Your task to perform on an android device: clear all cookies in the chrome app Image 0: 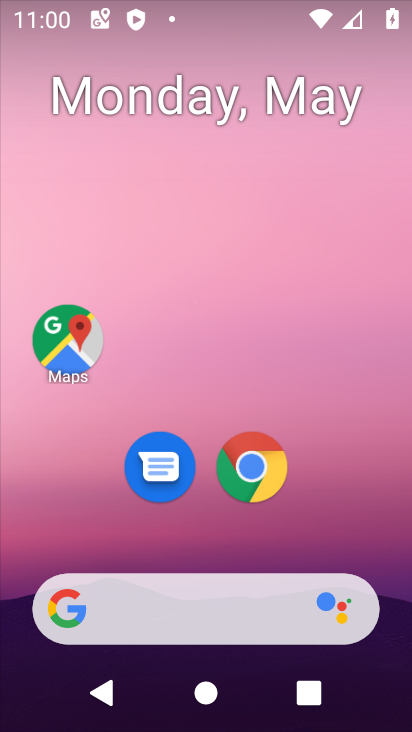
Step 0: click (252, 465)
Your task to perform on an android device: clear all cookies in the chrome app Image 1: 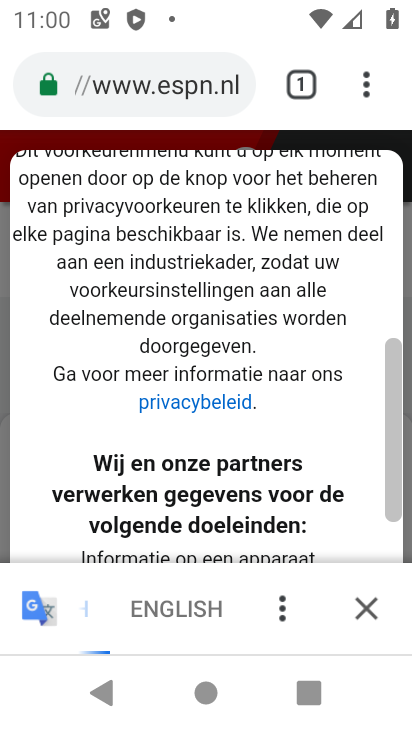
Step 1: click (362, 74)
Your task to perform on an android device: clear all cookies in the chrome app Image 2: 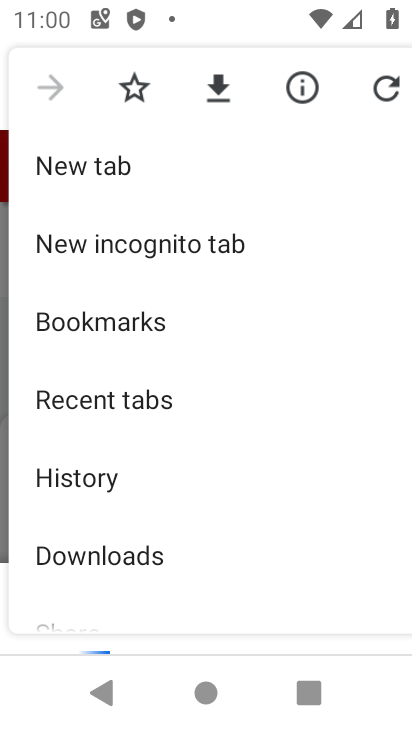
Step 2: click (69, 481)
Your task to perform on an android device: clear all cookies in the chrome app Image 3: 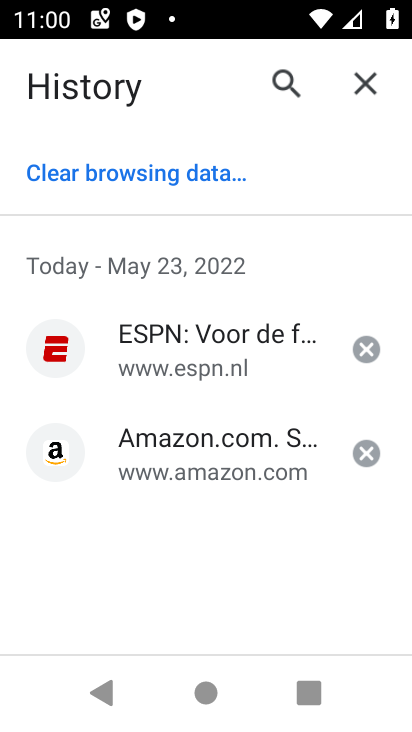
Step 3: click (138, 167)
Your task to perform on an android device: clear all cookies in the chrome app Image 4: 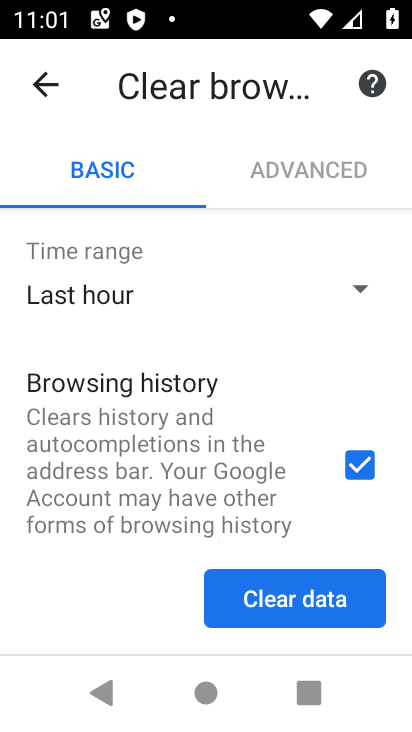
Step 4: drag from (299, 519) to (310, 254)
Your task to perform on an android device: clear all cookies in the chrome app Image 5: 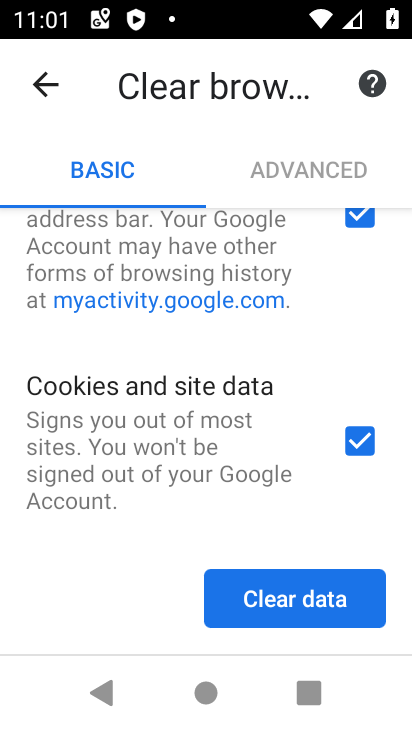
Step 5: click (305, 262)
Your task to perform on an android device: clear all cookies in the chrome app Image 6: 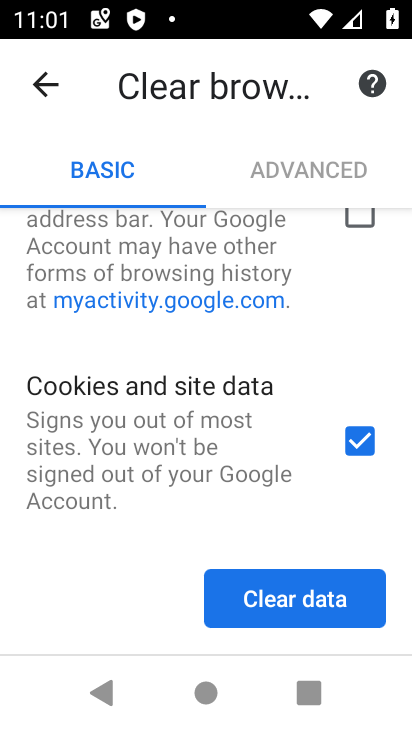
Step 6: drag from (241, 491) to (253, 222)
Your task to perform on an android device: clear all cookies in the chrome app Image 7: 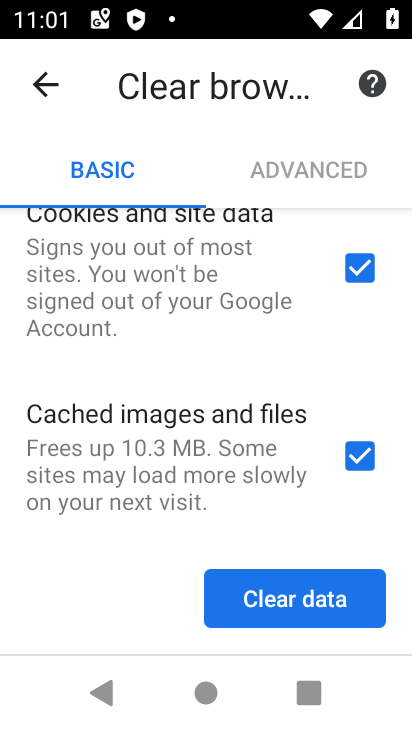
Step 7: click (317, 444)
Your task to perform on an android device: clear all cookies in the chrome app Image 8: 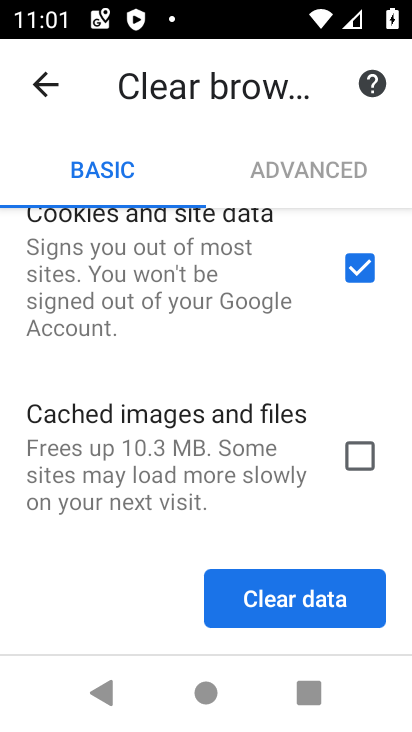
Step 8: click (323, 596)
Your task to perform on an android device: clear all cookies in the chrome app Image 9: 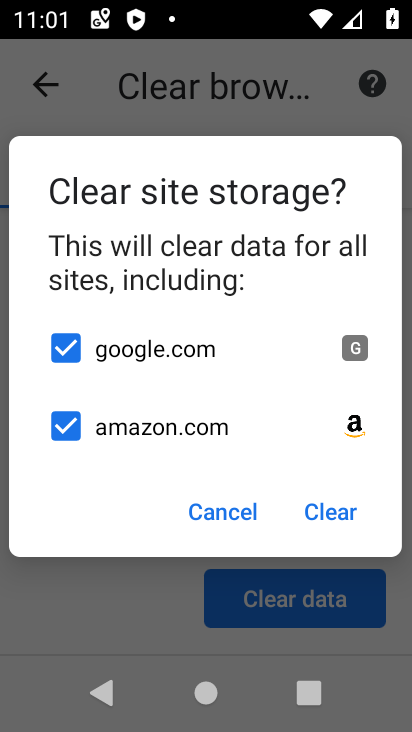
Step 9: click (336, 520)
Your task to perform on an android device: clear all cookies in the chrome app Image 10: 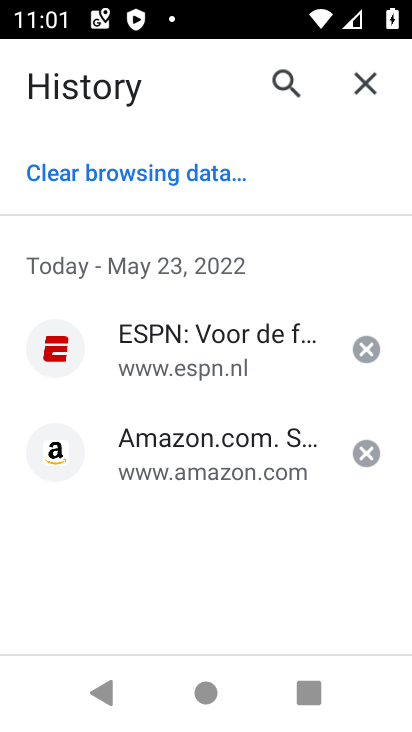
Step 10: task complete